Your task to perform on an android device: Open Android settings Image 0: 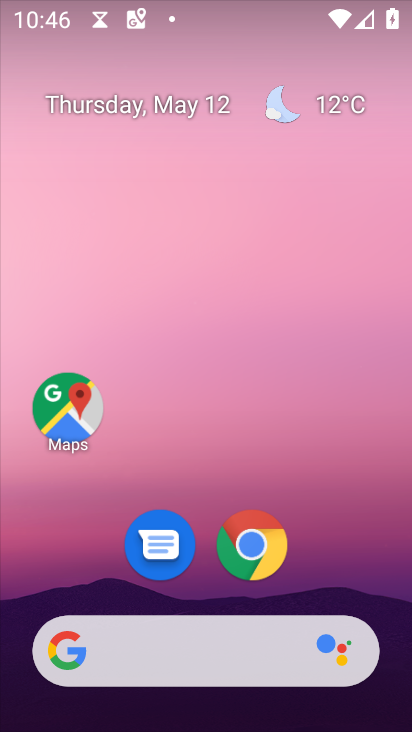
Step 0: drag from (207, 541) to (206, 63)
Your task to perform on an android device: Open Android settings Image 1: 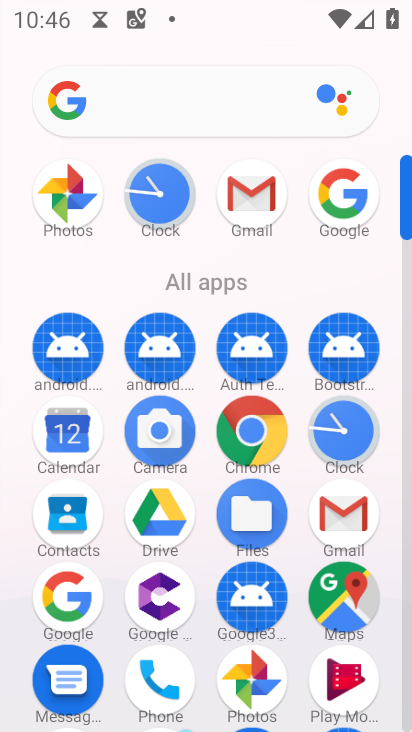
Step 1: drag from (211, 562) to (198, 102)
Your task to perform on an android device: Open Android settings Image 2: 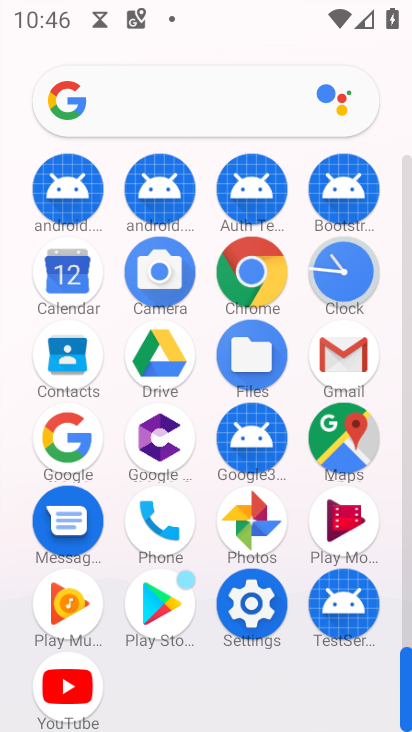
Step 2: click (249, 594)
Your task to perform on an android device: Open Android settings Image 3: 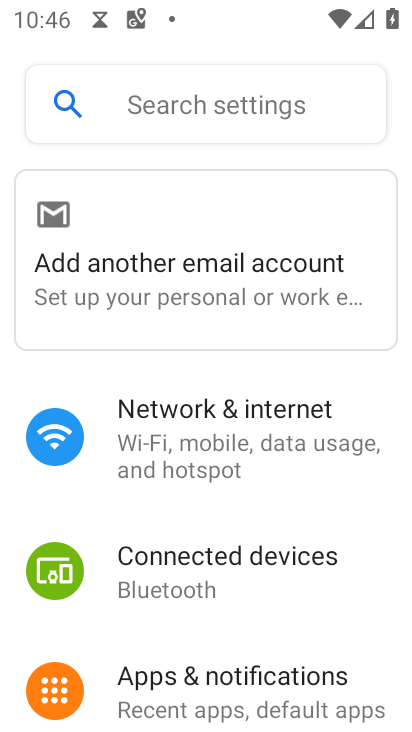
Step 3: drag from (208, 662) to (201, 111)
Your task to perform on an android device: Open Android settings Image 4: 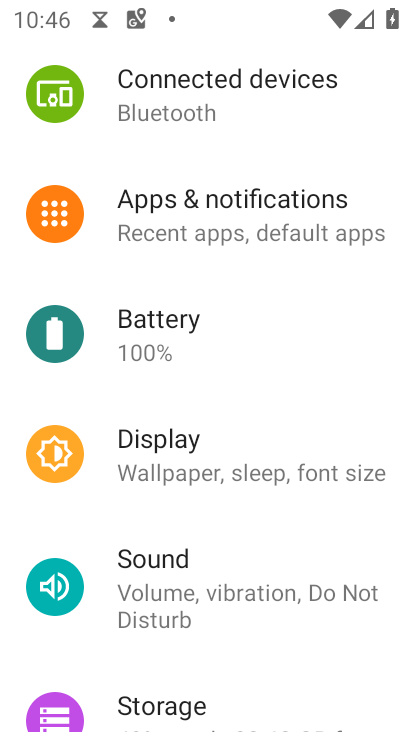
Step 4: drag from (178, 670) to (177, 71)
Your task to perform on an android device: Open Android settings Image 5: 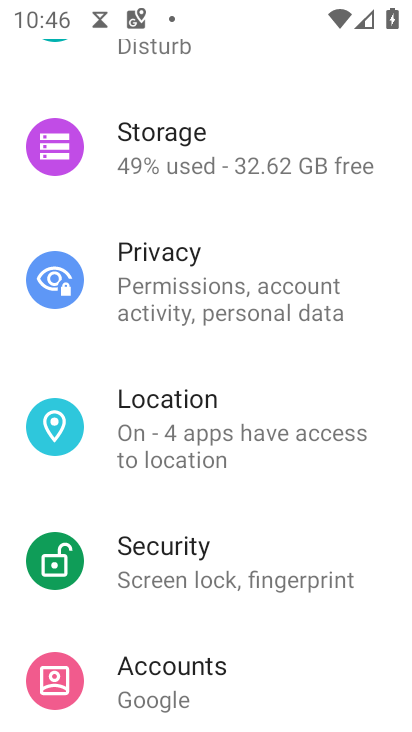
Step 5: drag from (253, 674) to (273, 60)
Your task to perform on an android device: Open Android settings Image 6: 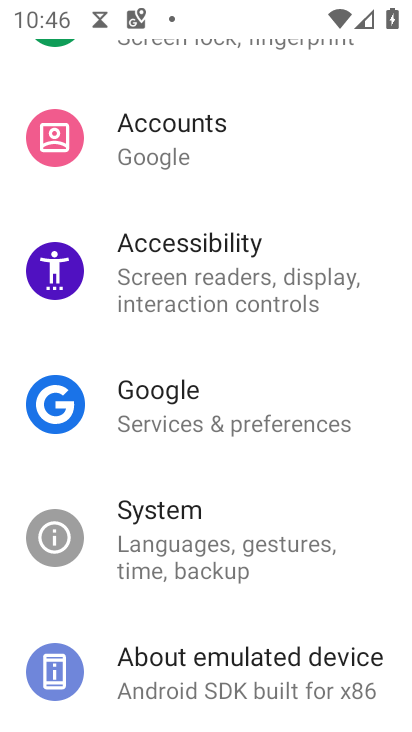
Step 6: click (88, 672)
Your task to perform on an android device: Open Android settings Image 7: 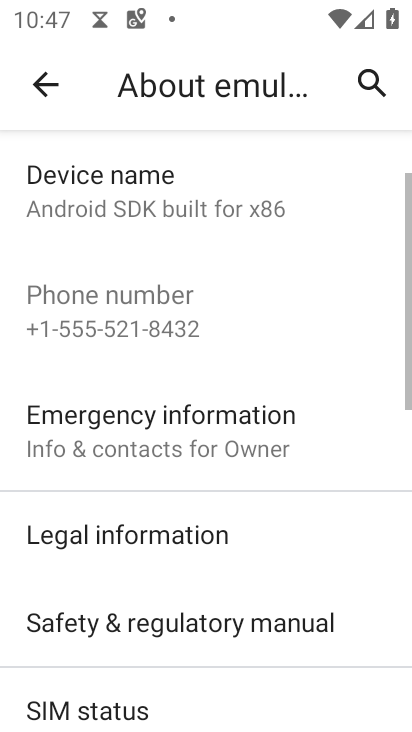
Step 7: drag from (187, 695) to (180, 262)
Your task to perform on an android device: Open Android settings Image 8: 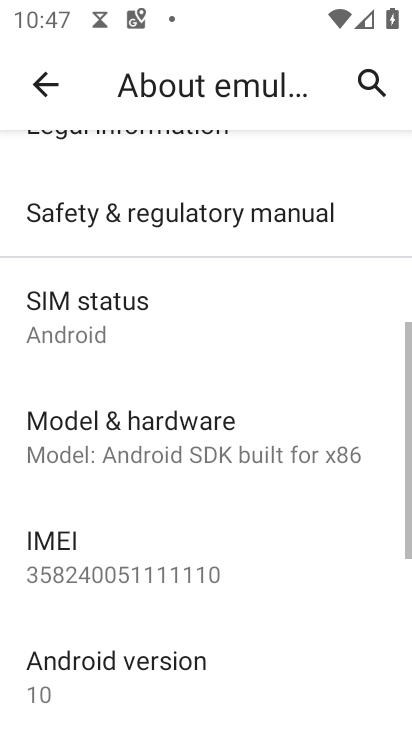
Step 8: click (166, 690)
Your task to perform on an android device: Open Android settings Image 9: 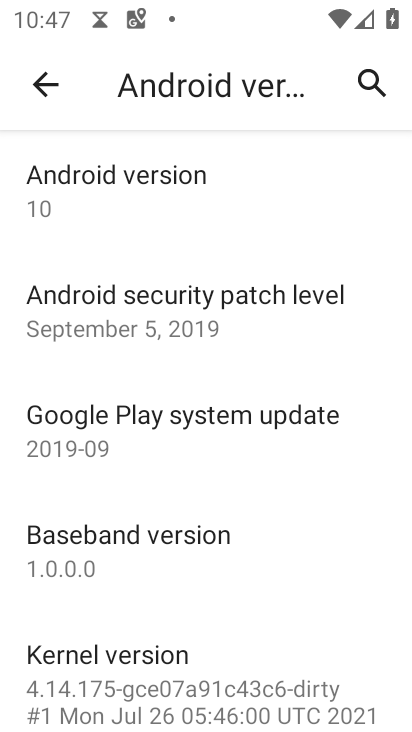
Step 9: task complete